Your task to perform on an android device: Check the news Image 0: 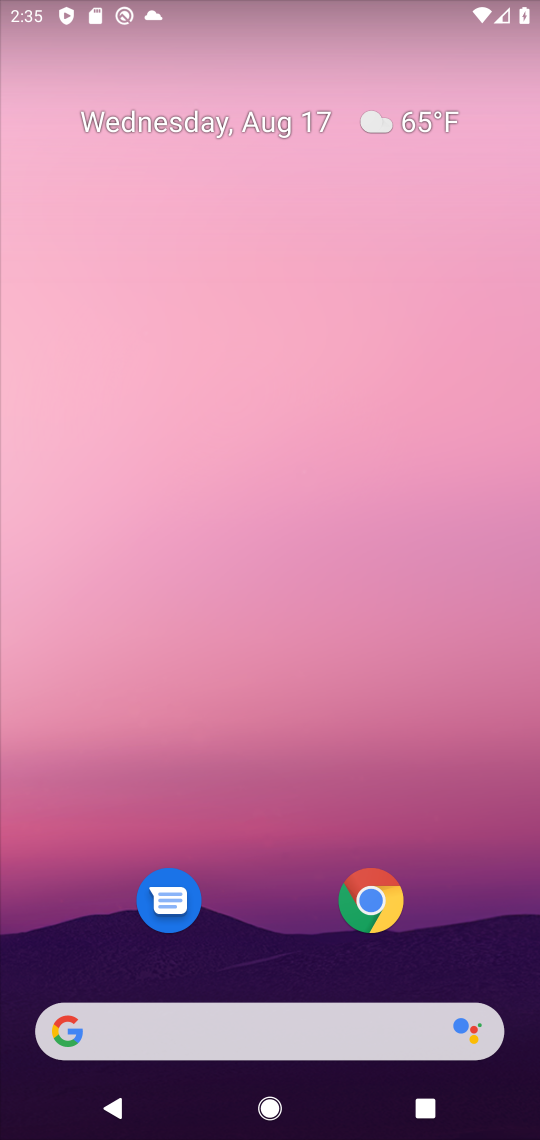
Step 0: click (193, 1022)
Your task to perform on an android device: Check the news Image 1: 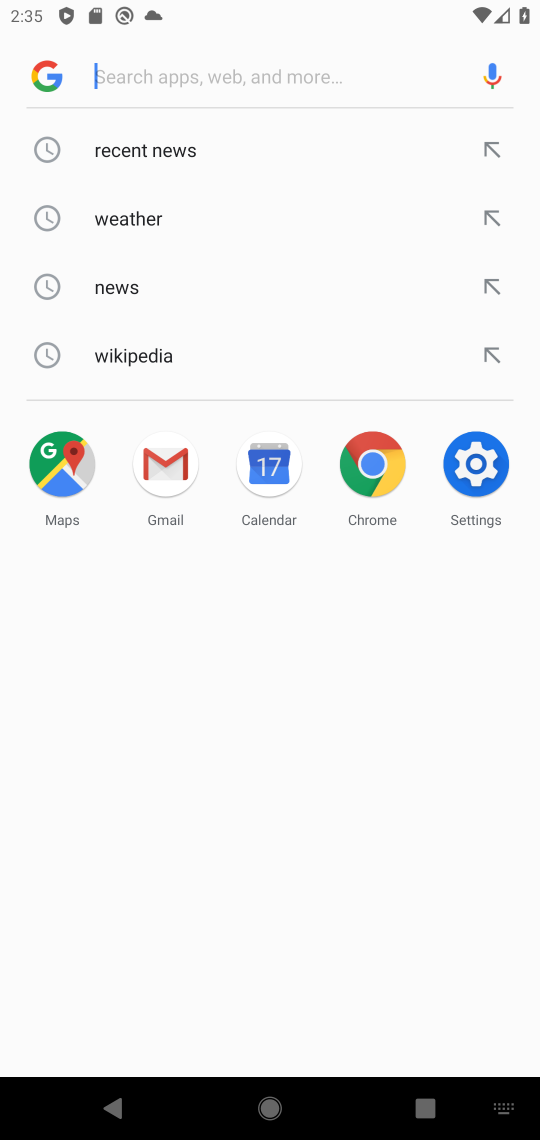
Step 1: click (118, 290)
Your task to perform on an android device: Check the news Image 2: 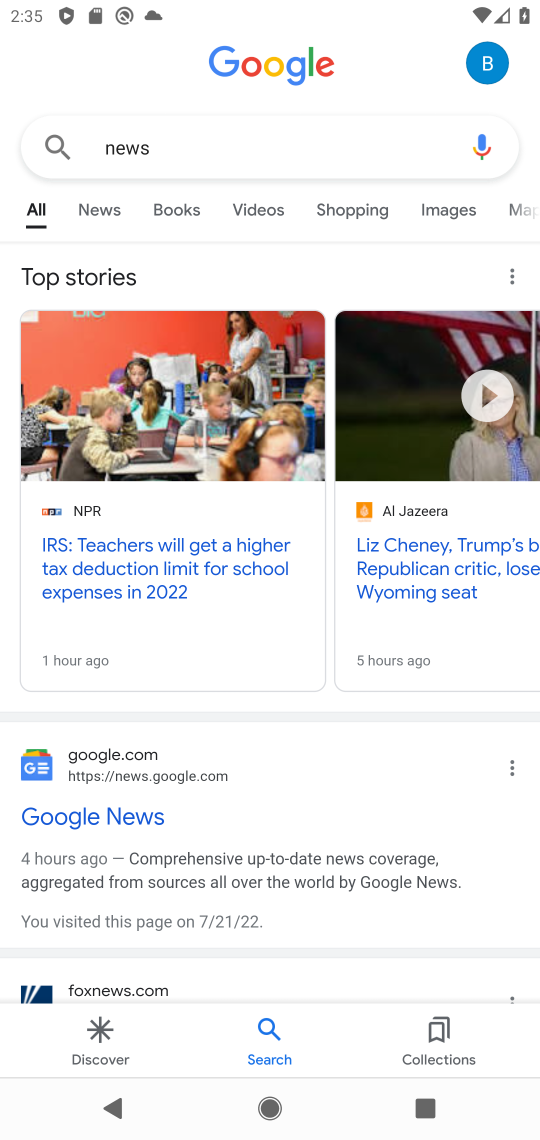
Step 2: click (101, 205)
Your task to perform on an android device: Check the news Image 3: 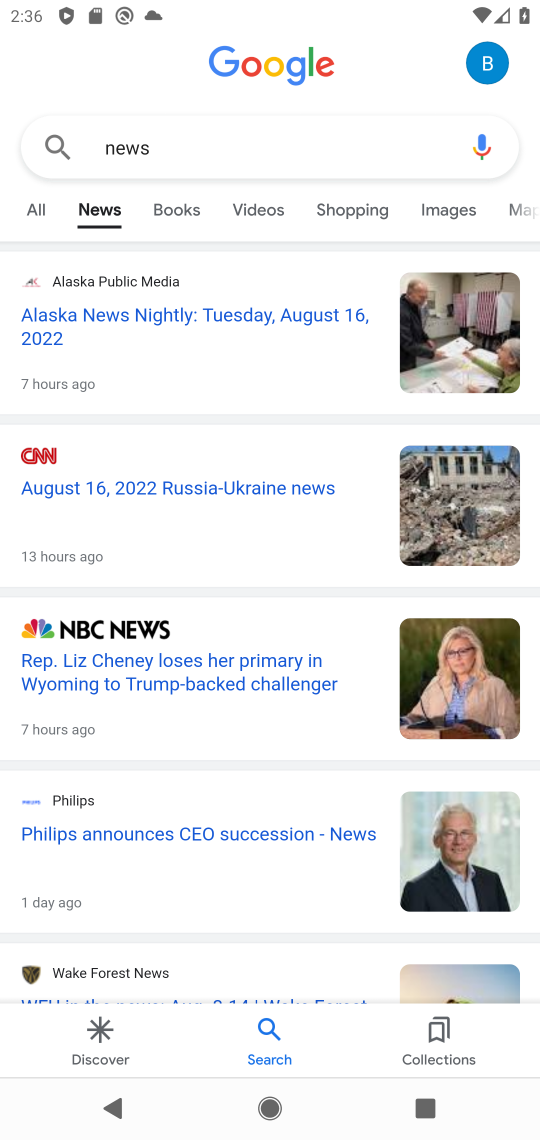
Step 3: task complete